Your task to perform on an android device: Add jbl flip 4 to the cart on costco.com, then select checkout. Image 0: 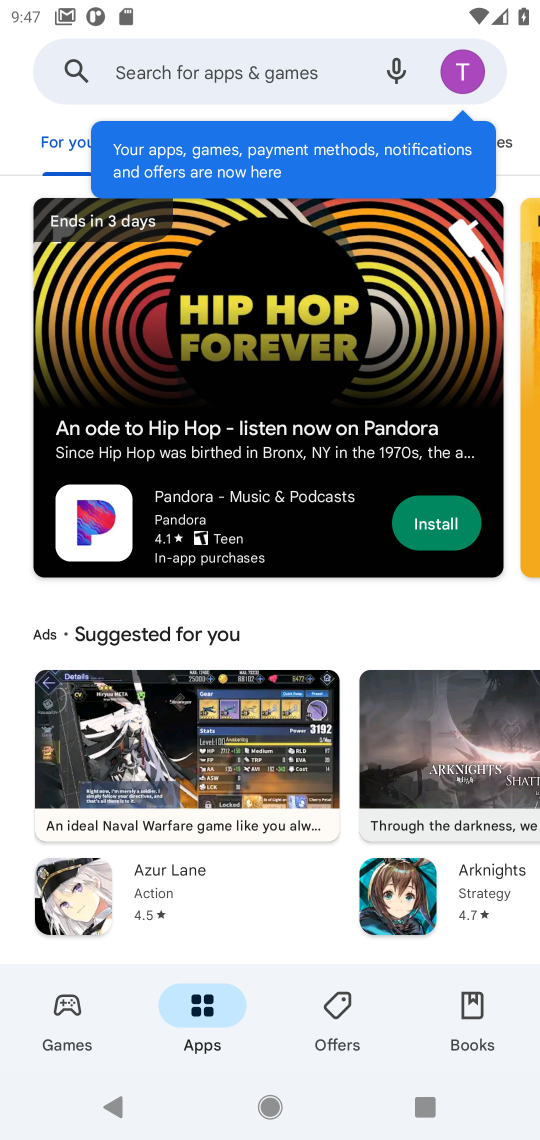
Step 0: press home button
Your task to perform on an android device: Add jbl flip 4 to the cart on costco.com, then select checkout. Image 1: 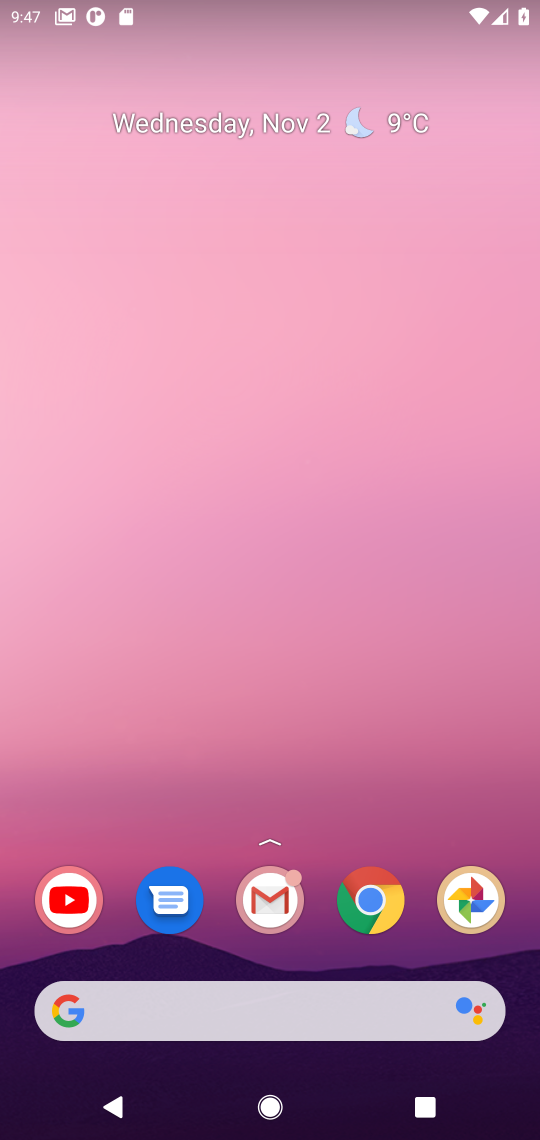
Step 1: click (372, 926)
Your task to perform on an android device: Add jbl flip 4 to the cart on costco.com, then select checkout. Image 2: 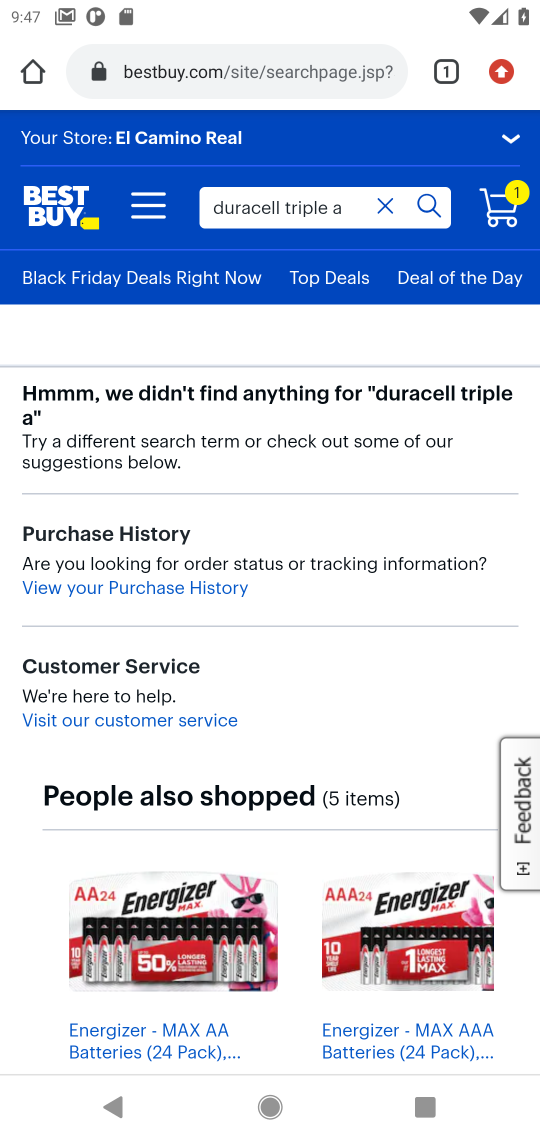
Step 2: click (197, 71)
Your task to perform on an android device: Add jbl flip 4 to the cart on costco.com, then select checkout. Image 3: 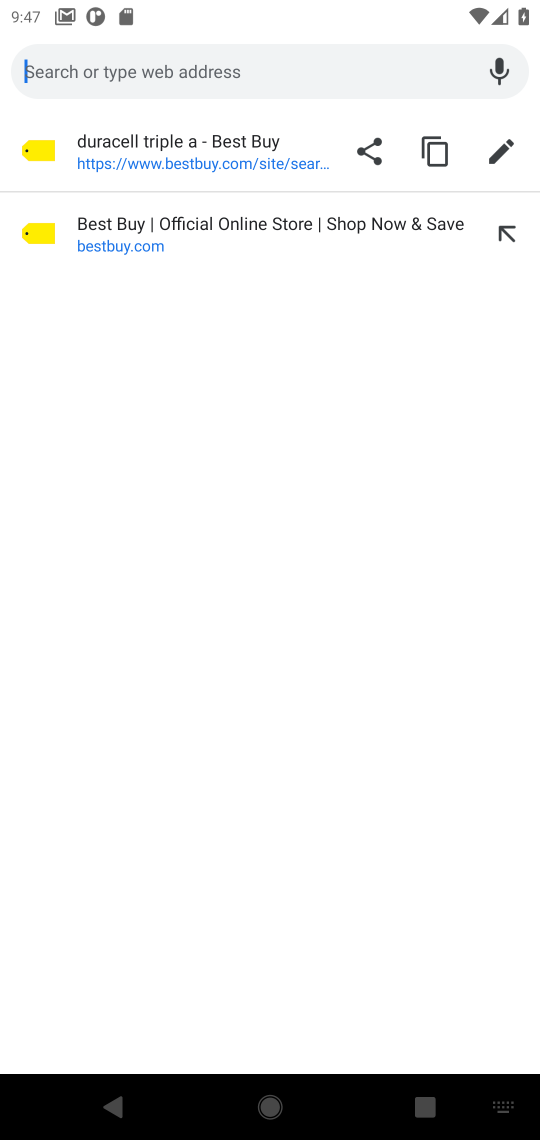
Step 3: type "costco"
Your task to perform on an android device: Add jbl flip 4 to the cart on costco.com, then select checkout. Image 4: 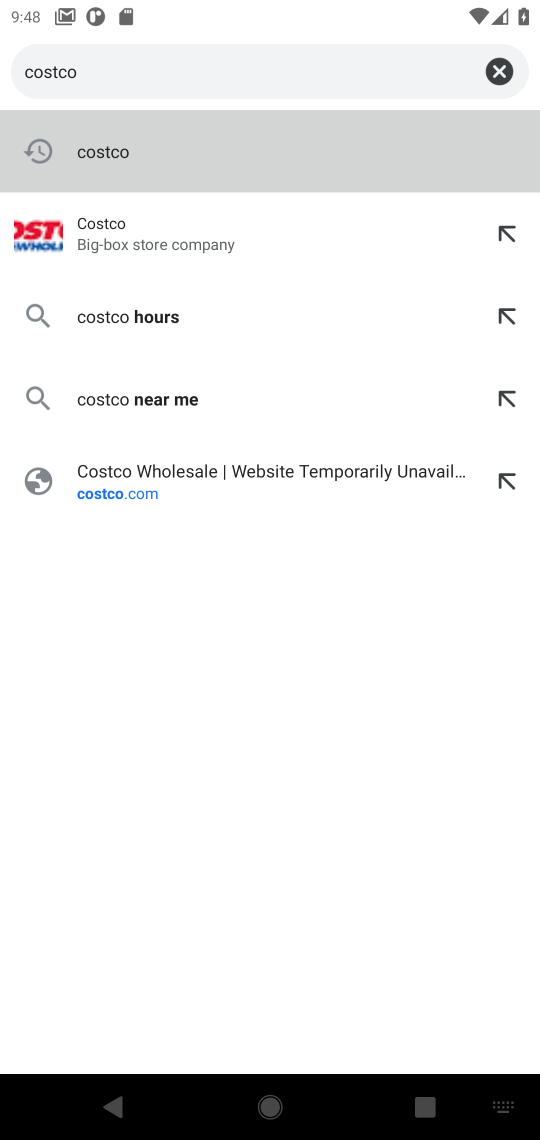
Step 4: click (133, 254)
Your task to perform on an android device: Add jbl flip 4 to the cart on costco.com, then select checkout. Image 5: 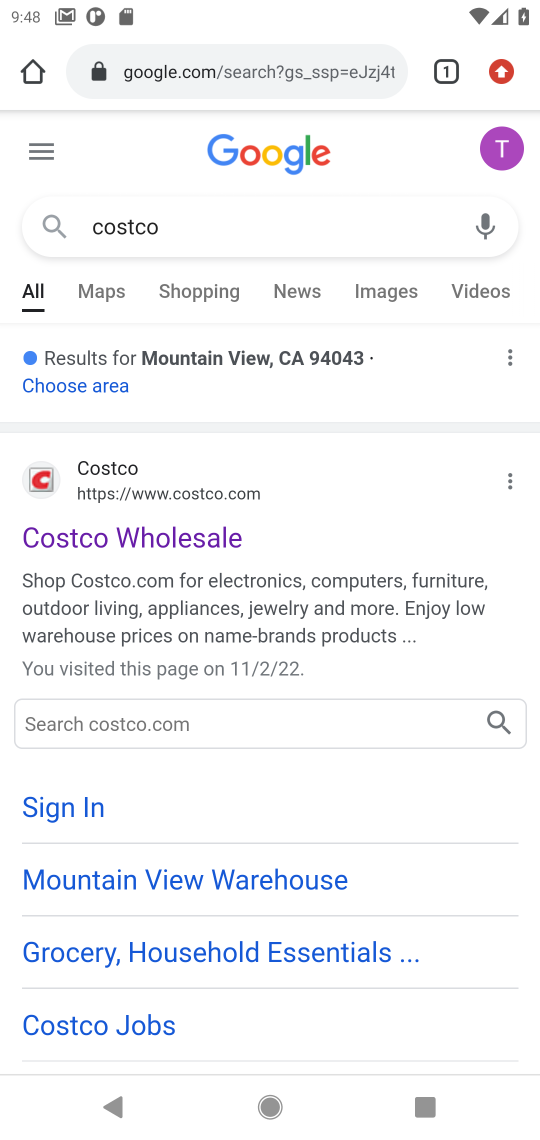
Step 5: click (131, 519)
Your task to perform on an android device: Add jbl flip 4 to the cart on costco.com, then select checkout. Image 6: 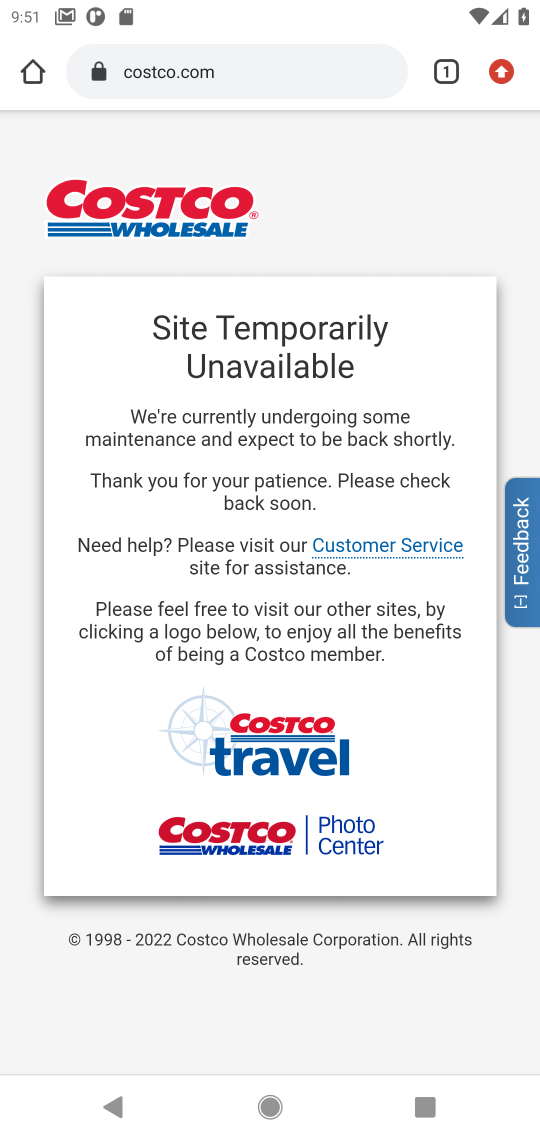
Step 6: task complete